Your task to perform on an android device: turn off airplane mode Image 0: 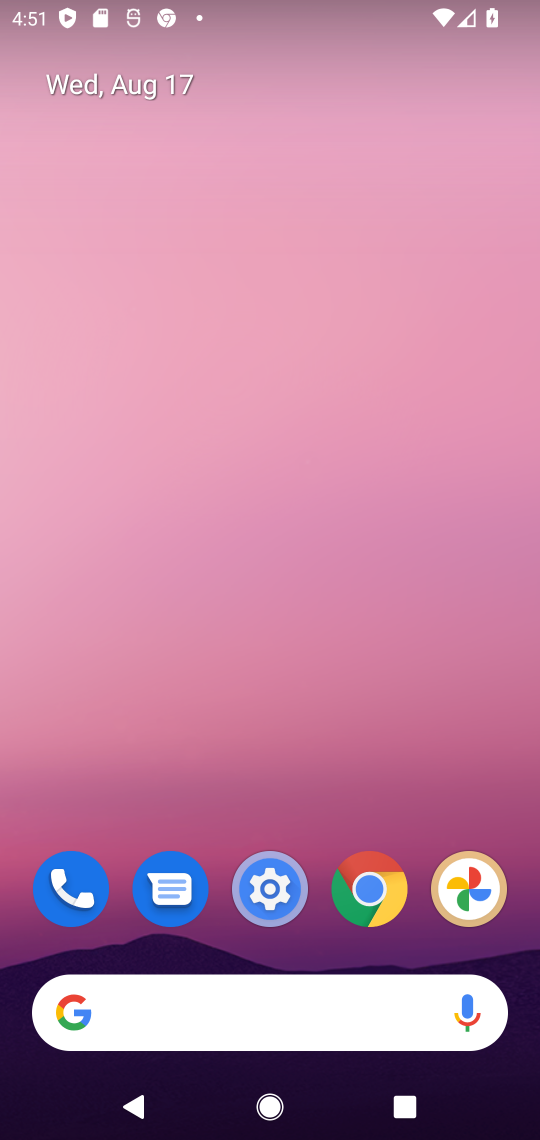
Step 0: click (265, 883)
Your task to perform on an android device: turn off airplane mode Image 1: 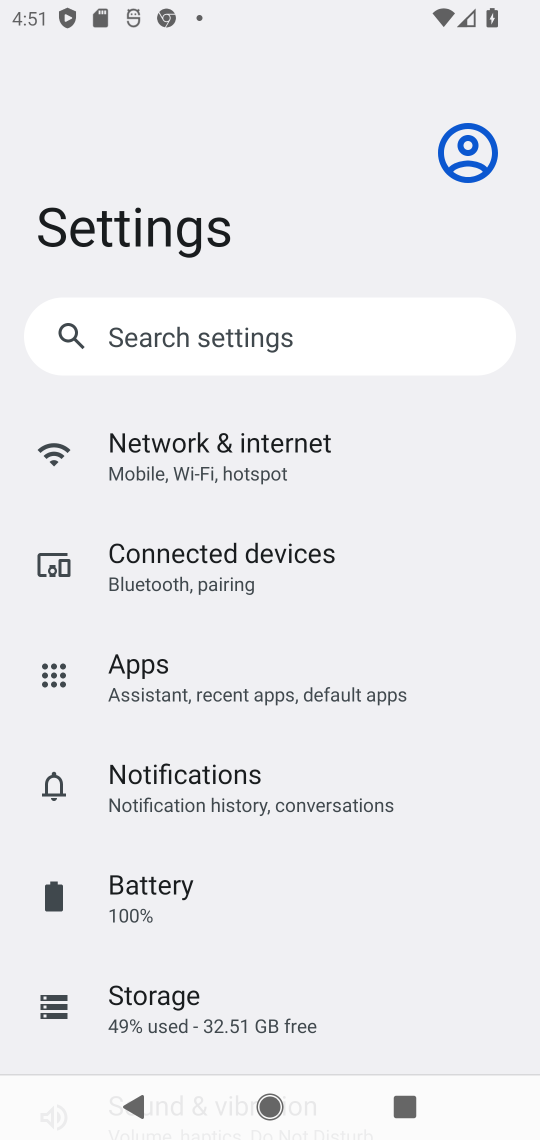
Step 1: click (181, 447)
Your task to perform on an android device: turn off airplane mode Image 2: 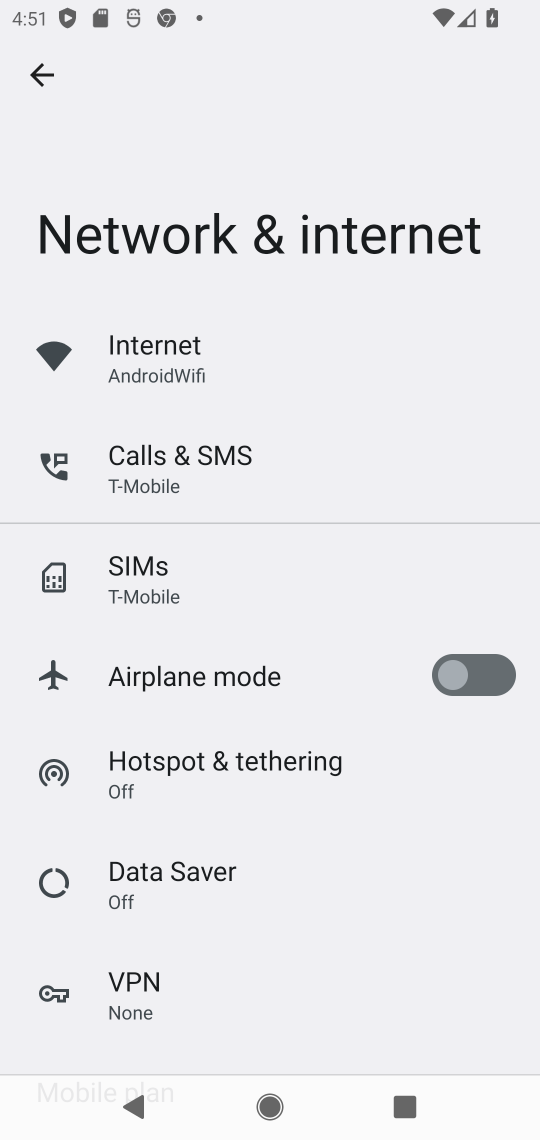
Step 2: task complete